Your task to perform on an android device: install app "Facebook Messenger" Image 0: 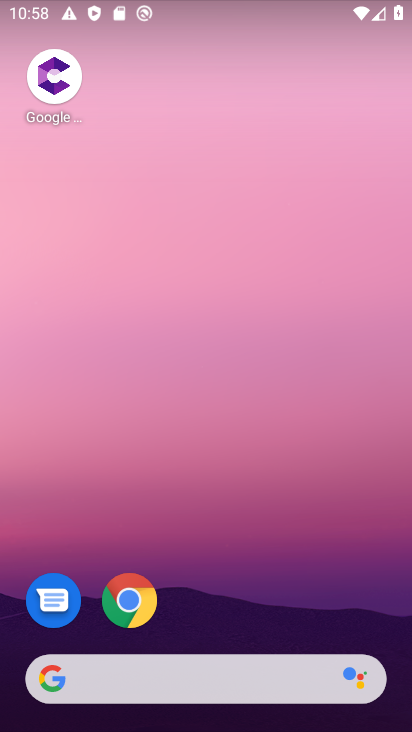
Step 0: drag from (309, 642) to (360, 62)
Your task to perform on an android device: install app "Facebook Messenger" Image 1: 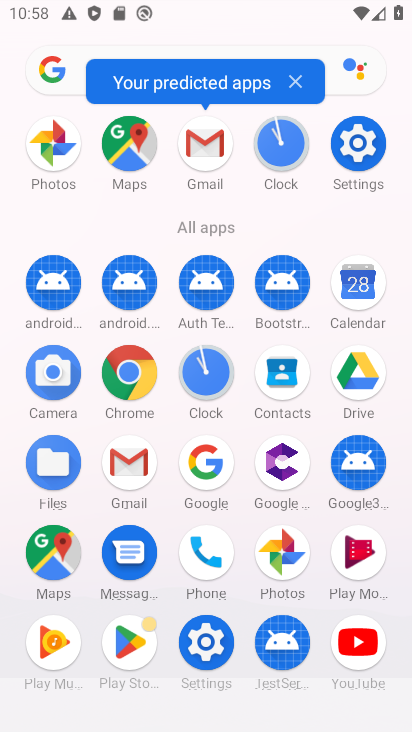
Step 1: click (111, 646)
Your task to perform on an android device: install app "Facebook Messenger" Image 2: 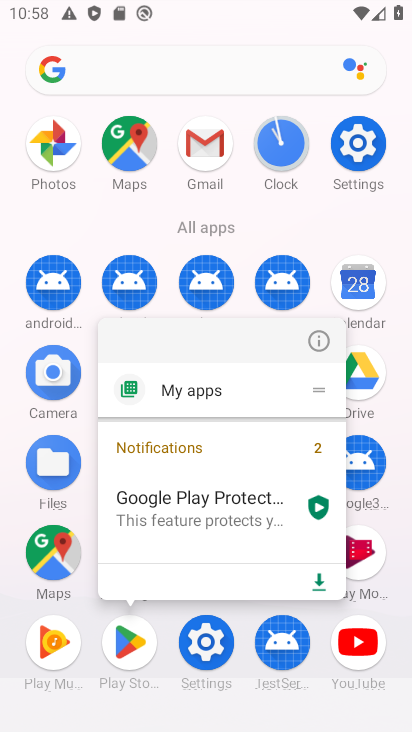
Step 2: click (111, 646)
Your task to perform on an android device: install app "Facebook Messenger" Image 3: 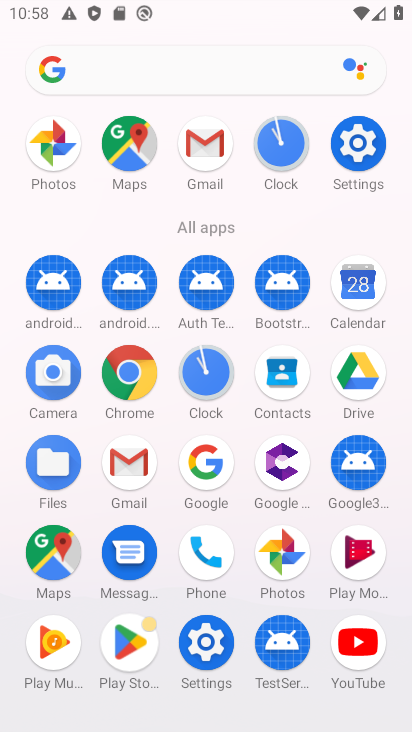
Step 3: click (111, 646)
Your task to perform on an android device: install app "Facebook Messenger" Image 4: 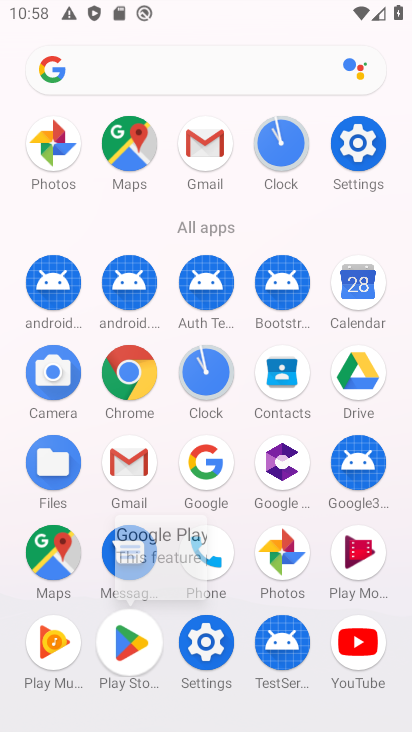
Step 4: click (111, 646)
Your task to perform on an android device: install app "Facebook Messenger" Image 5: 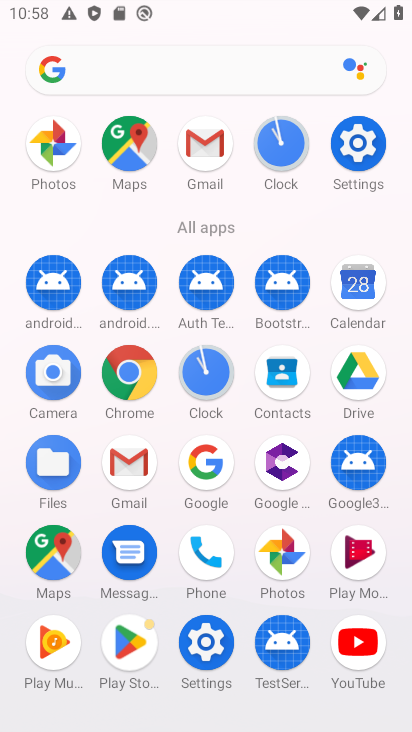
Step 5: click (111, 646)
Your task to perform on an android device: install app "Facebook Messenger" Image 6: 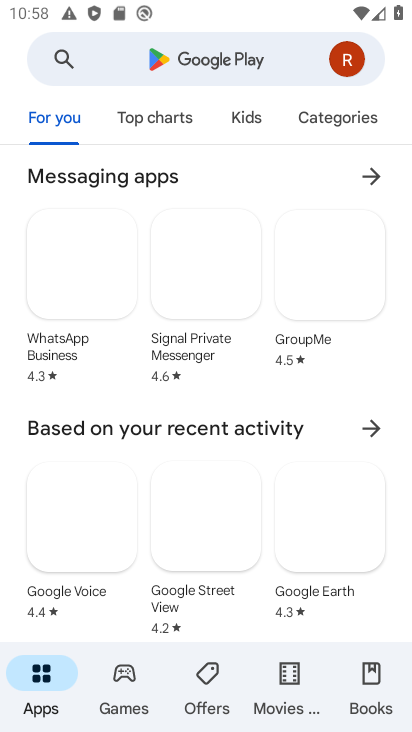
Step 6: click (219, 65)
Your task to perform on an android device: install app "Facebook Messenger" Image 7: 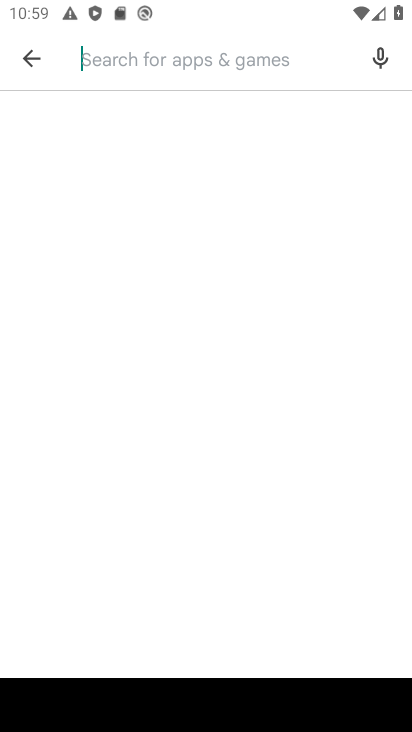
Step 7: type "facebook Messenger"
Your task to perform on an android device: install app "Facebook Messenger" Image 8: 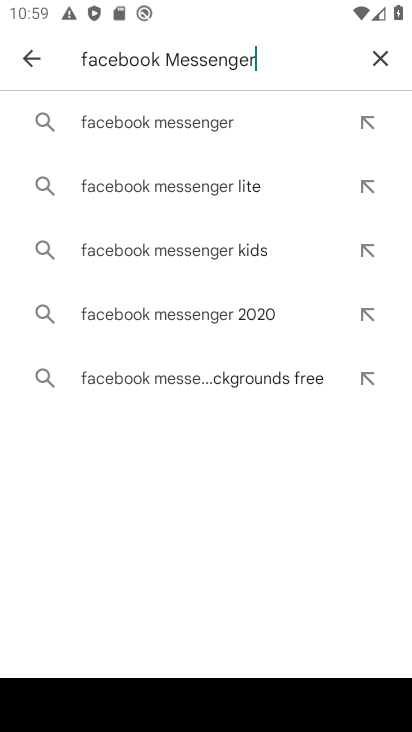
Step 8: click (289, 129)
Your task to perform on an android device: install app "Facebook Messenger" Image 9: 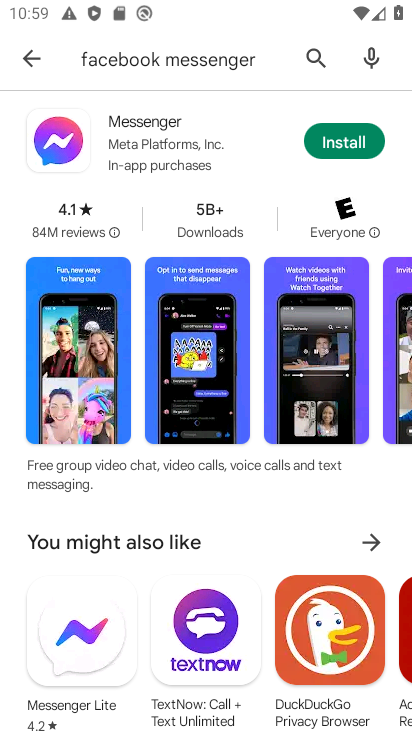
Step 9: click (323, 149)
Your task to perform on an android device: install app "Facebook Messenger" Image 10: 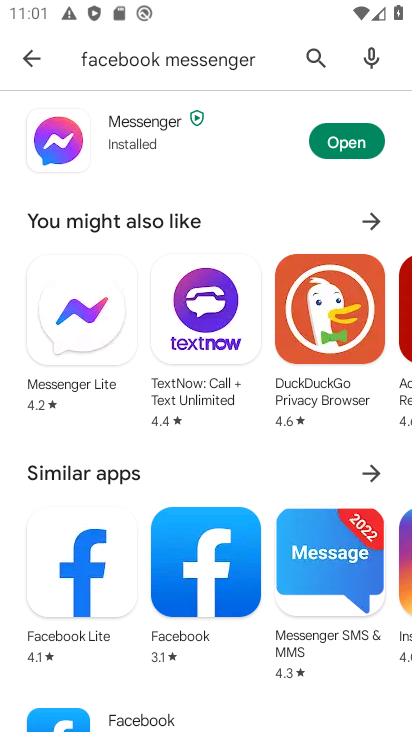
Step 10: task complete